Your task to perform on an android device: Do I have any events tomorrow? Image 0: 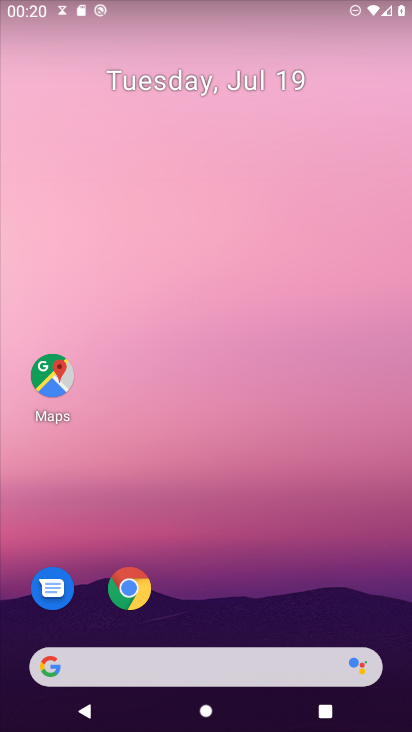
Step 0: drag from (287, 589) to (363, 181)
Your task to perform on an android device: Do I have any events tomorrow? Image 1: 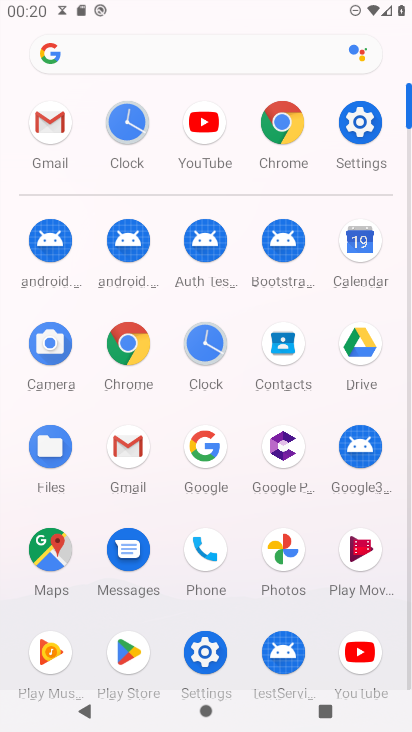
Step 1: click (362, 246)
Your task to perform on an android device: Do I have any events tomorrow? Image 2: 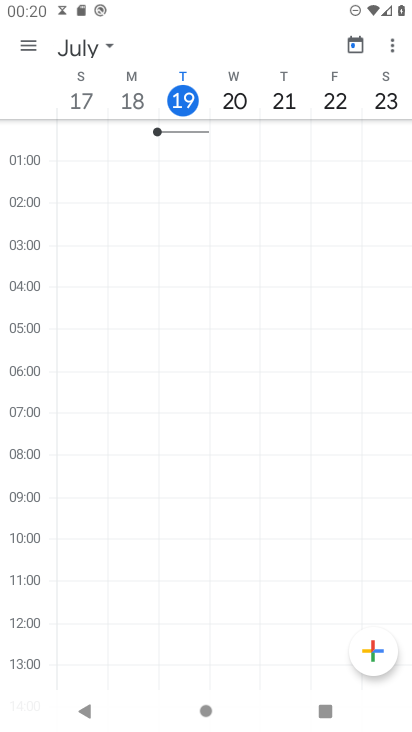
Step 2: click (234, 95)
Your task to perform on an android device: Do I have any events tomorrow? Image 3: 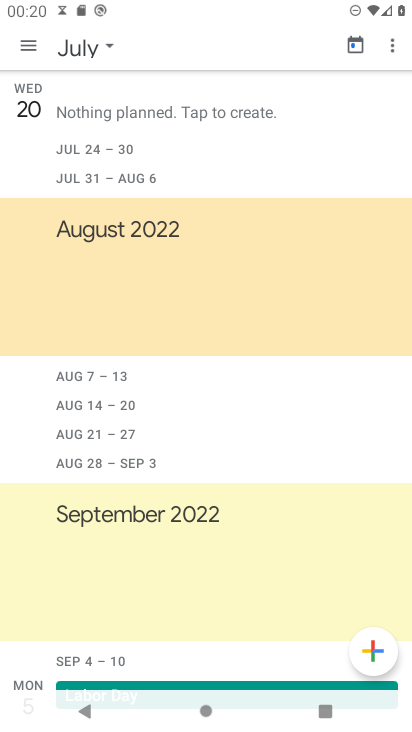
Step 3: task complete